Your task to perform on an android device: Find coffee shops on Maps Image 0: 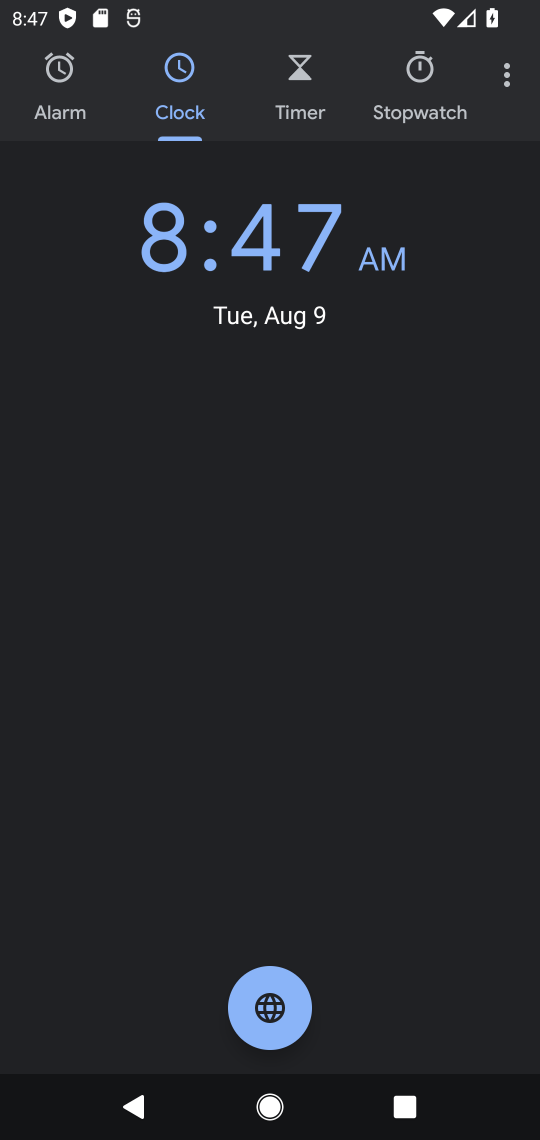
Step 0: press home button
Your task to perform on an android device: Find coffee shops on Maps Image 1: 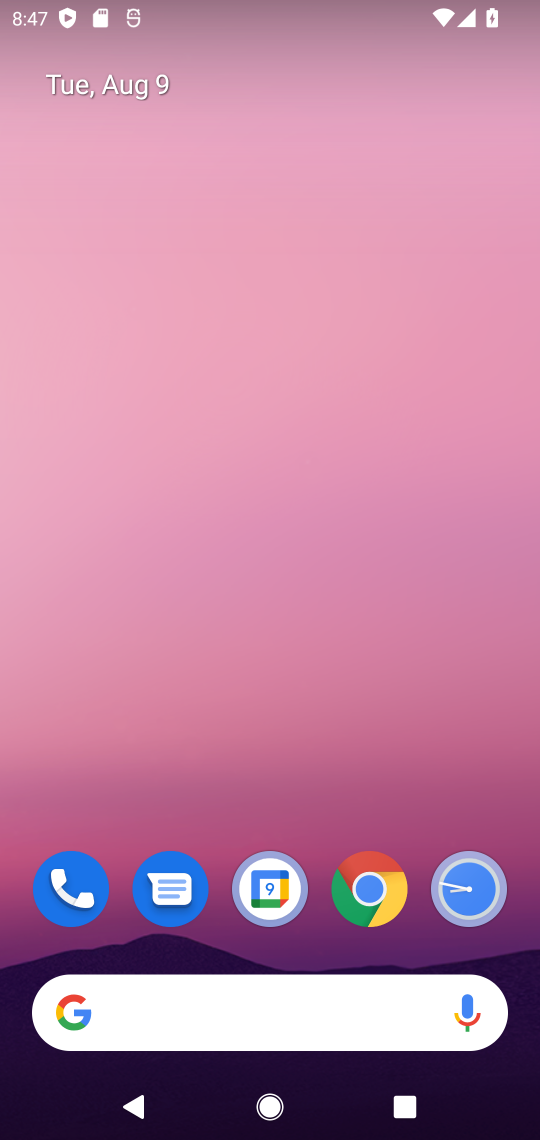
Step 1: drag from (392, 737) to (478, 107)
Your task to perform on an android device: Find coffee shops on Maps Image 2: 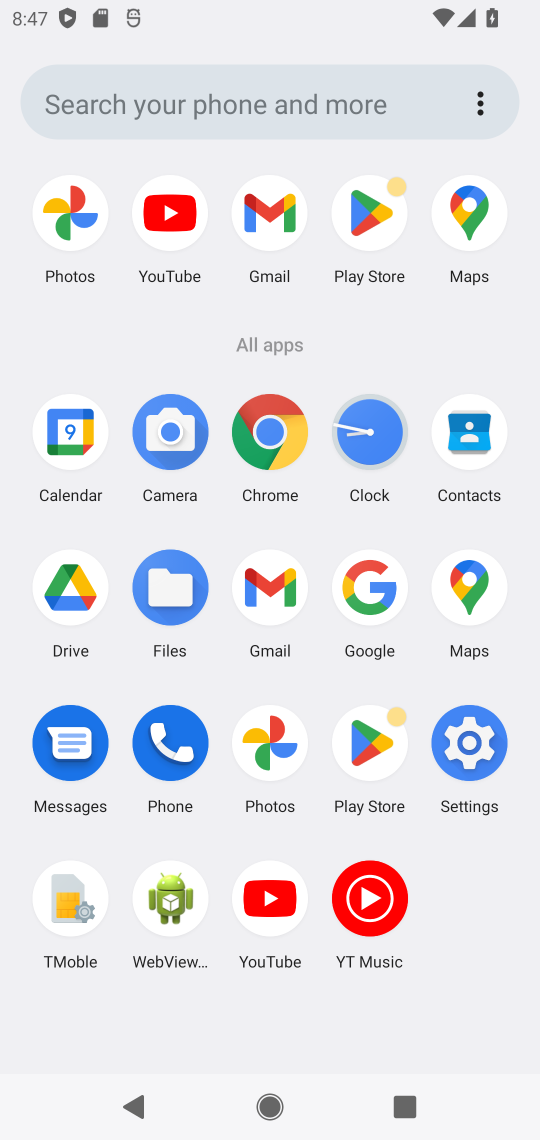
Step 2: click (444, 584)
Your task to perform on an android device: Find coffee shops on Maps Image 3: 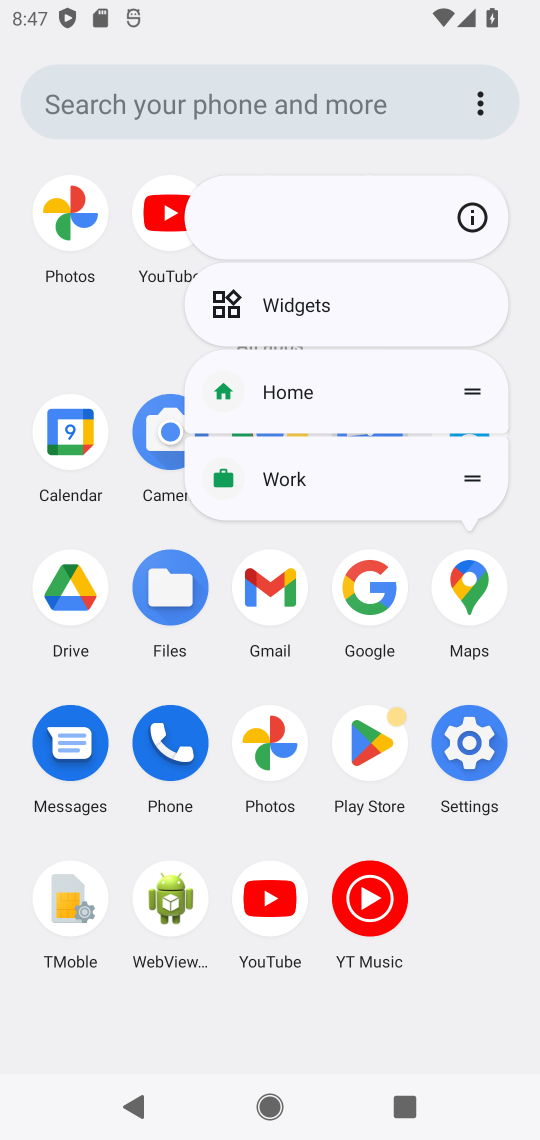
Step 3: click (457, 602)
Your task to perform on an android device: Find coffee shops on Maps Image 4: 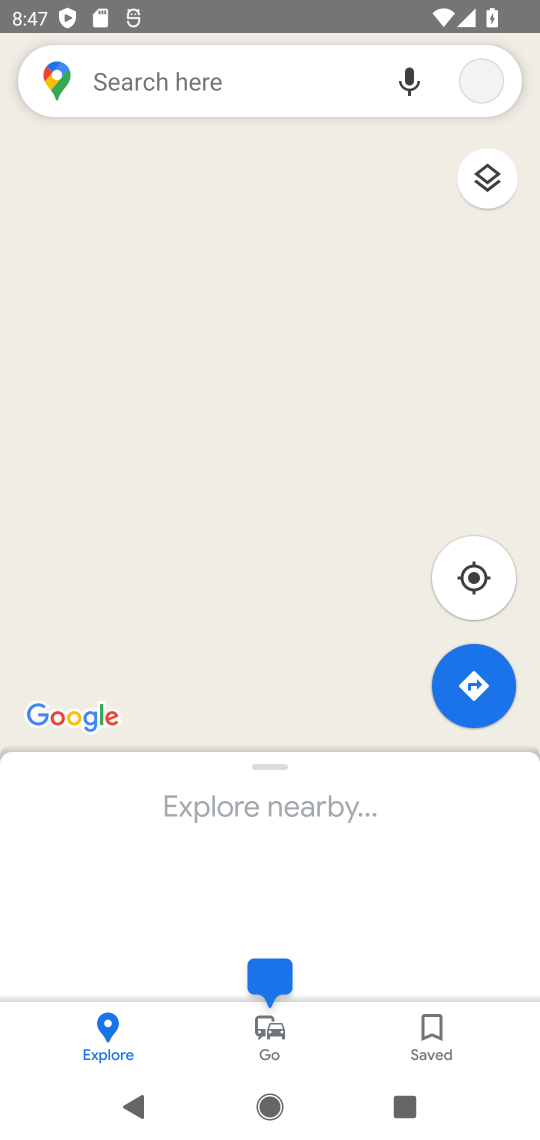
Step 4: click (151, 73)
Your task to perform on an android device: Find coffee shops on Maps Image 5: 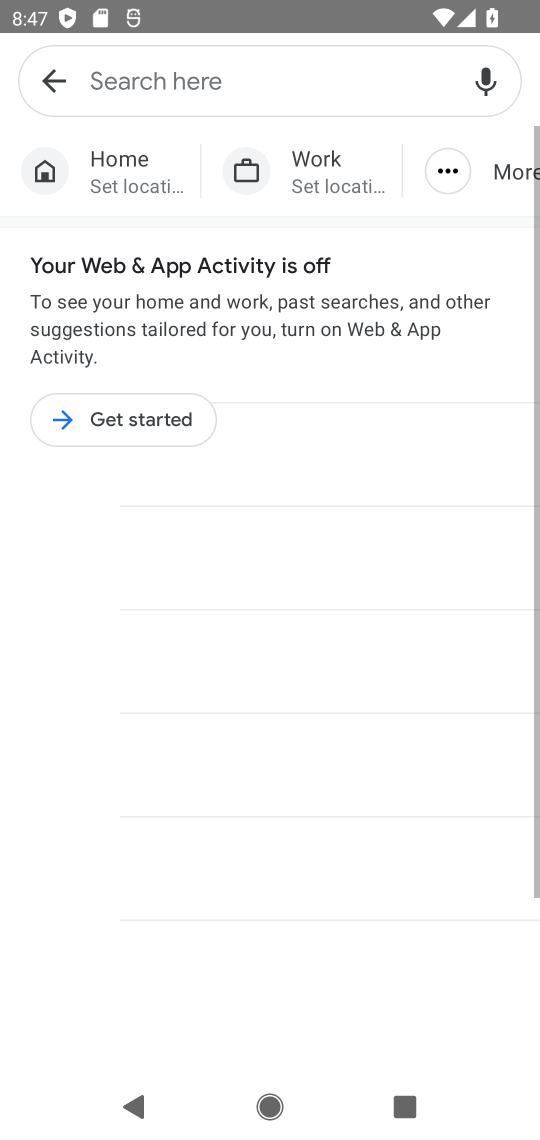
Step 5: click (196, 83)
Your task to perform on an android device: Find coffee shops on Maps Image 6: 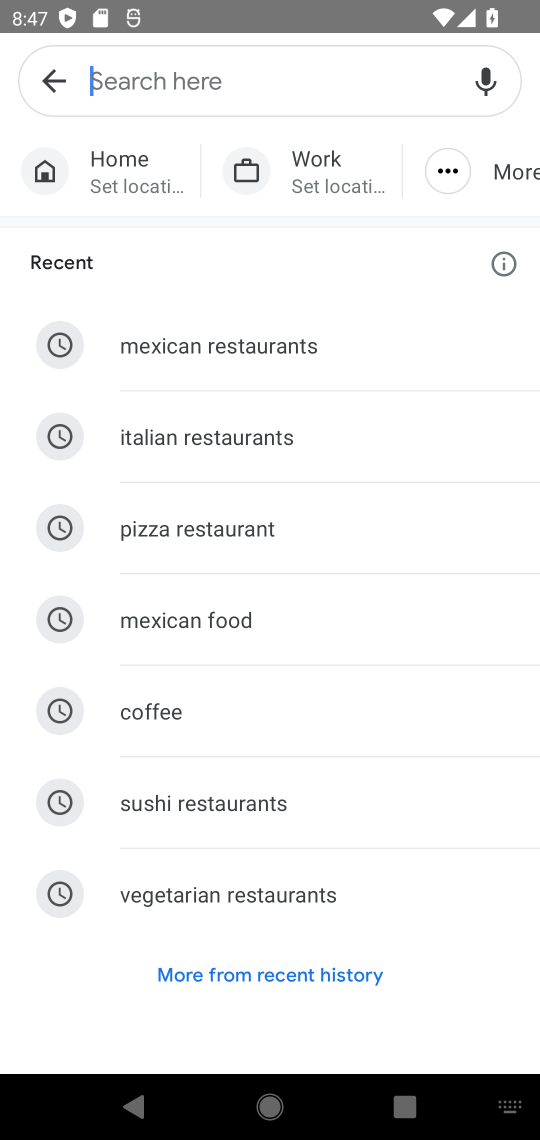
Step 6: type "coffee shops"
Your task to perform on an android device: Find coffee shops on Maps Image 7: 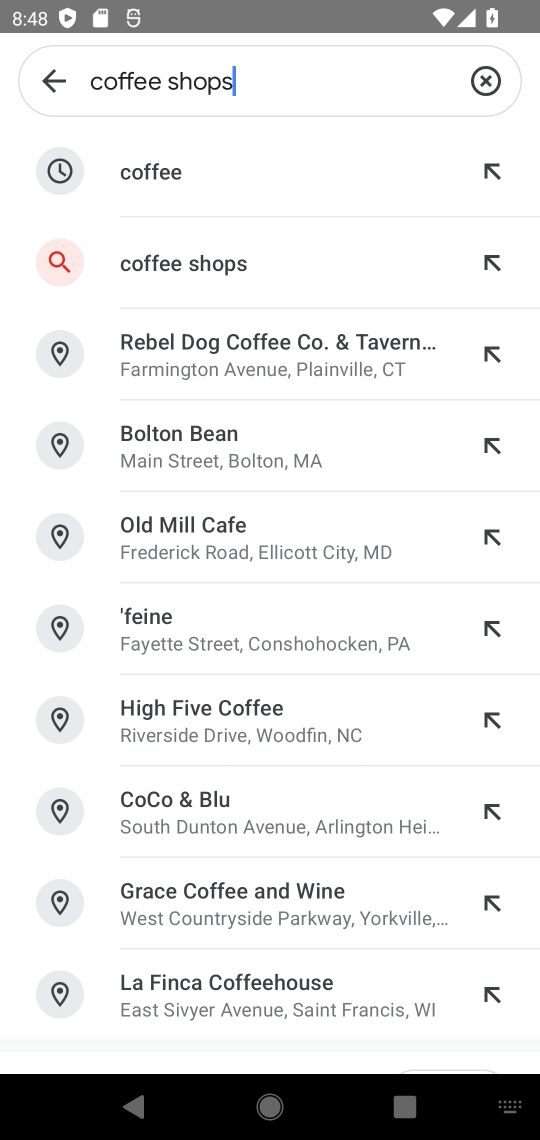
Step 7: click (271, 265)
Your task to perform on an android device: Find coffee shops on Maps Image 8: 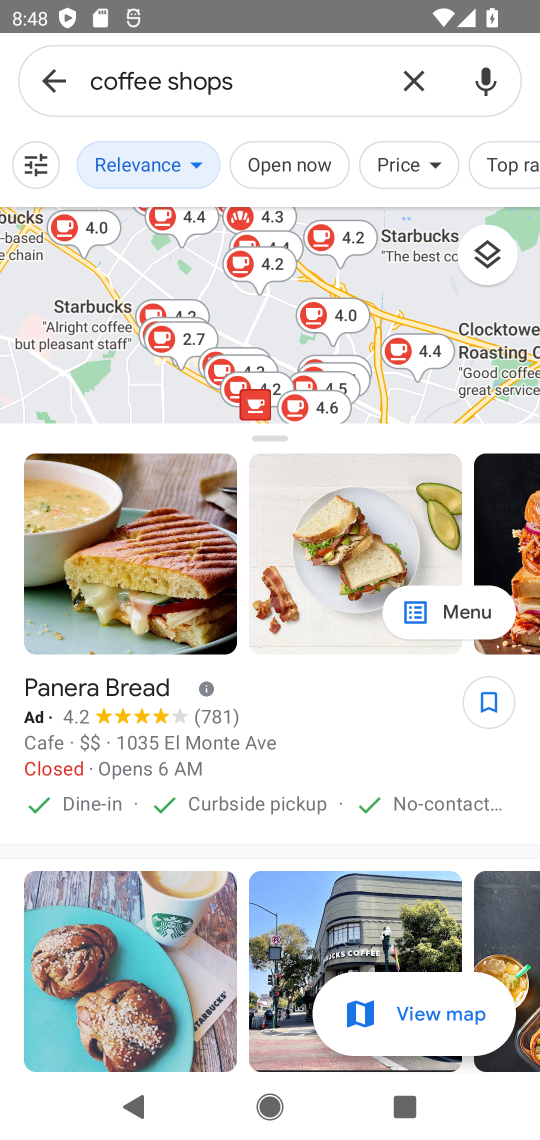
Step 8: task complete